Your task to perform on an android device: star an email in the gmail app Image 0: 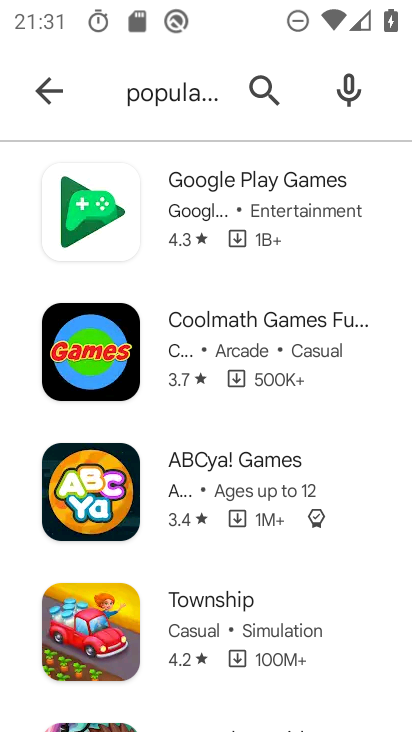
Step 0: press home button
Your task to perform on an android device: star an email in the gmail app Image 1: 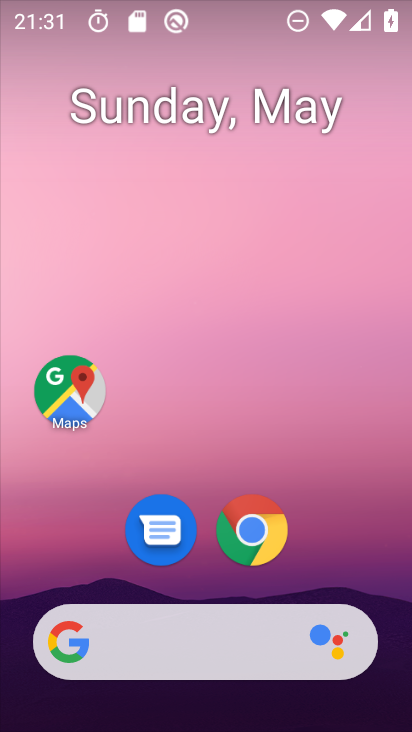
Step 1: drag from (300, 662) to (282, 253)
Your task to perform on an android device: star an email in the gmail app Image 2: 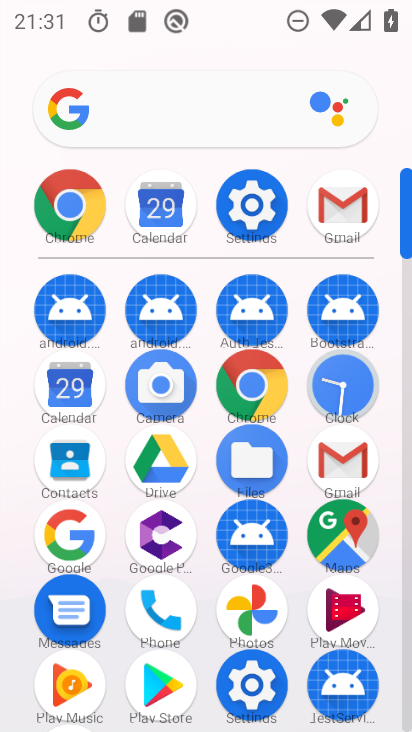
Step 2: click (352, 201)
Your task to perform on an android device: star an email in the gmail app Image 3: 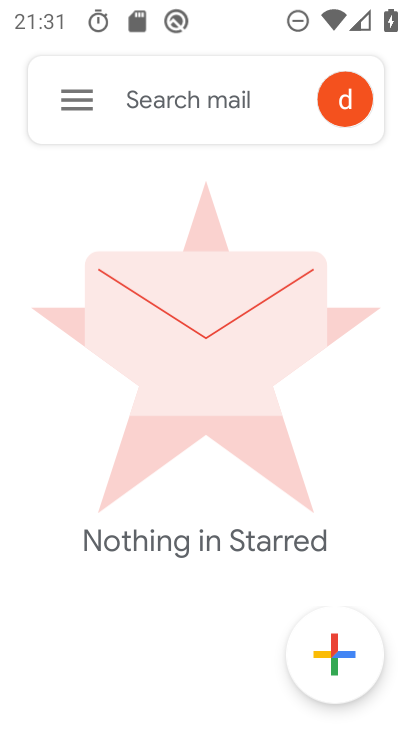
Step 3: click (66, 114)
Your task to perform on an android device: star an email in the gmail app Image 4: 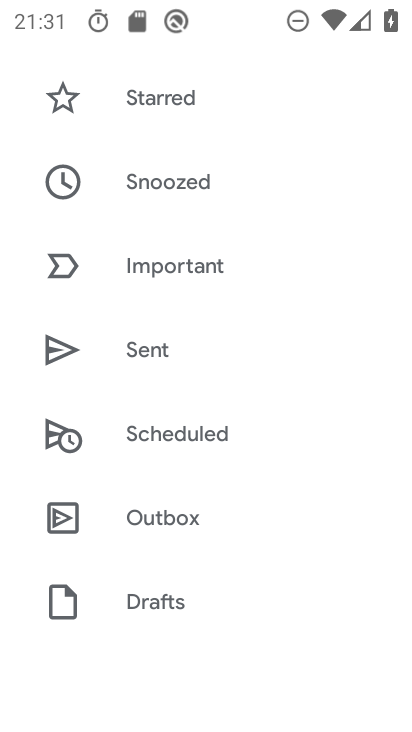
Step 4: click (158, 104)
Your task to perform on an android device: star an email in the gmail app Image 5: 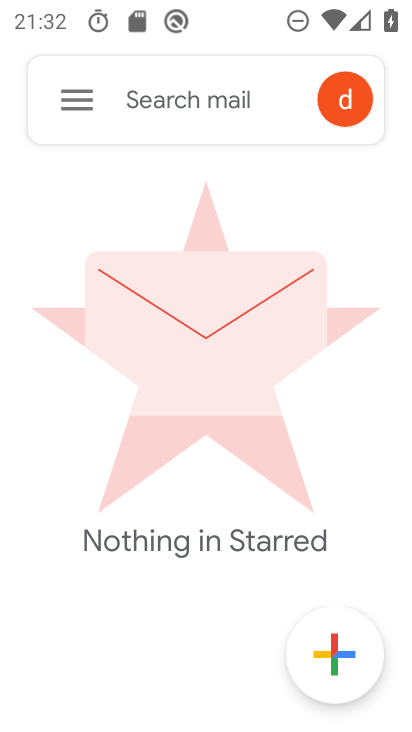
Step 5: task complete